Your task to perform on an android device: Open privacy settings Image 0: 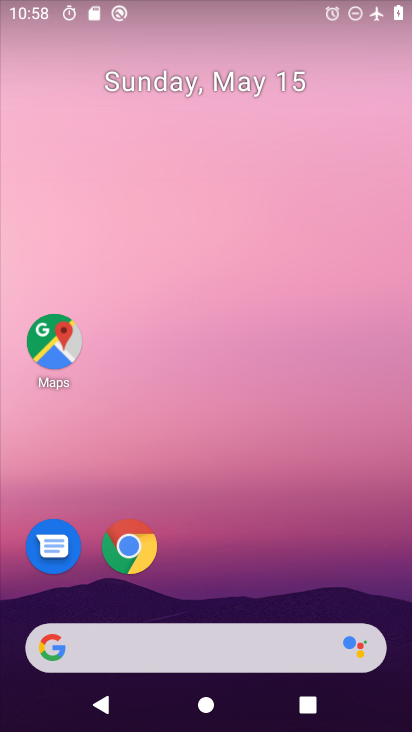
Step 0: drag from (285, 585) to (306, 143)
Your task to perform on an android device: Open privacy settings Image 1: 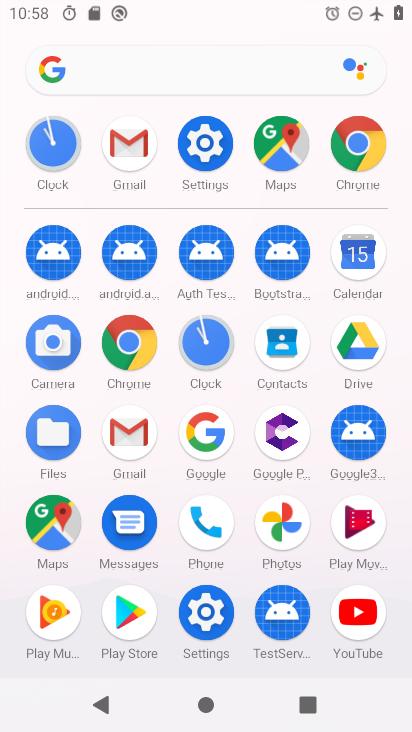
Step 1: click (215, 137)
Your task to perform on an android device: Open privacy settings Image 2: 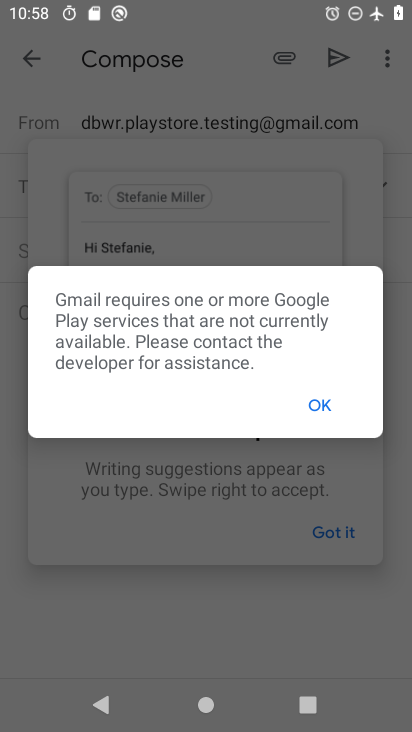
Step 2: press home button
Your task to perform on an android device: Open privacy settings Image 3: 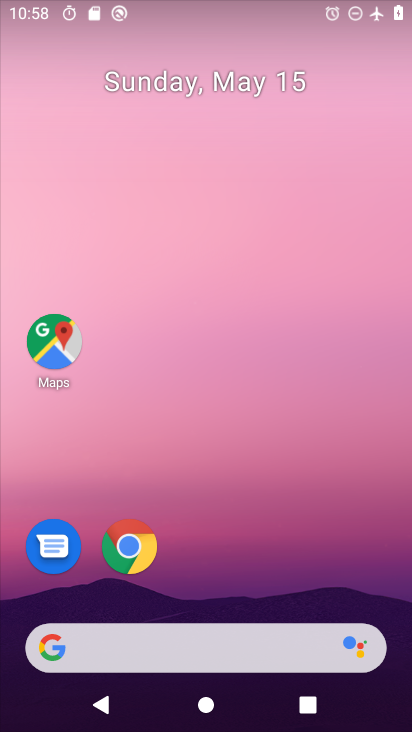
Step 3: drag from (267, 529) to (284, 67)
Your task to perform on an android device: Open privacy settings Image 4: 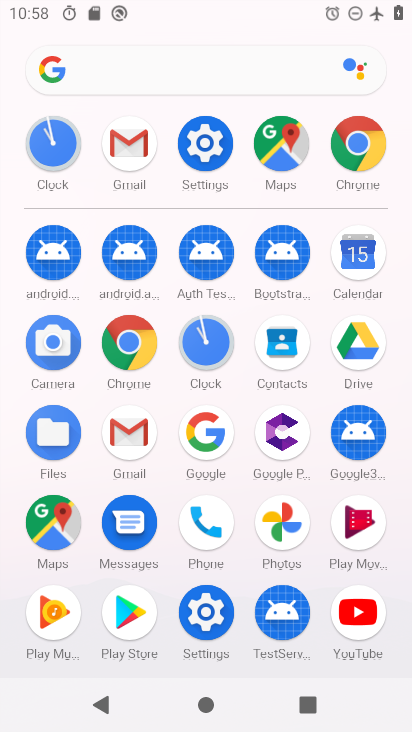
Step 4: click (208, 123)
Your task to perform on an android device: Open privacy settings Image 5: 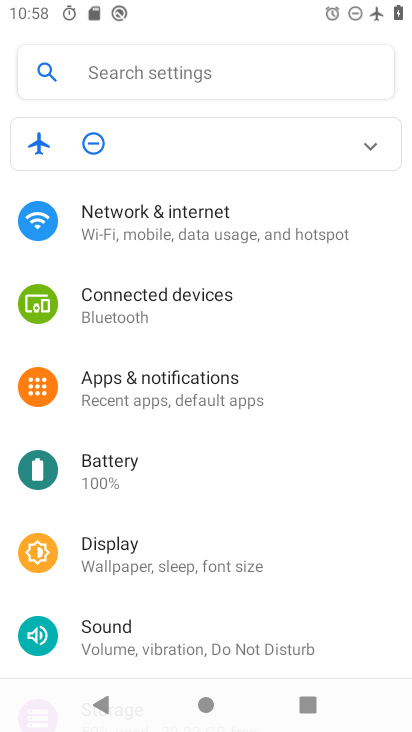
Step 5: drag from (243, 581) to (295, 48)
Your task to perform on an android device: Open privacy settings Image 6: 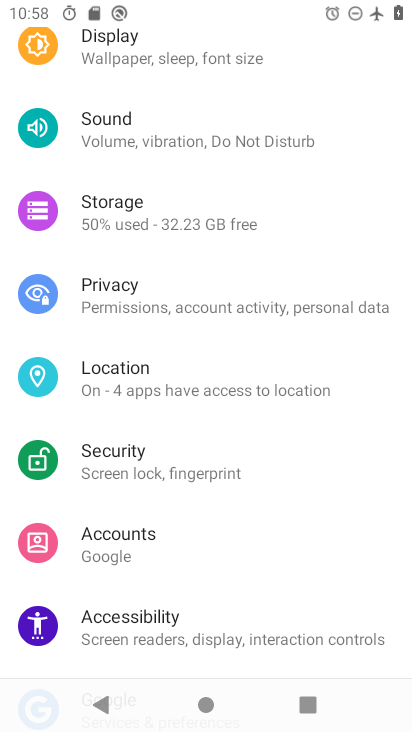
Step 6: drag from (258, 498) to (277, 96)
Your task to perform on an android device: Open privacy settings Image 7: 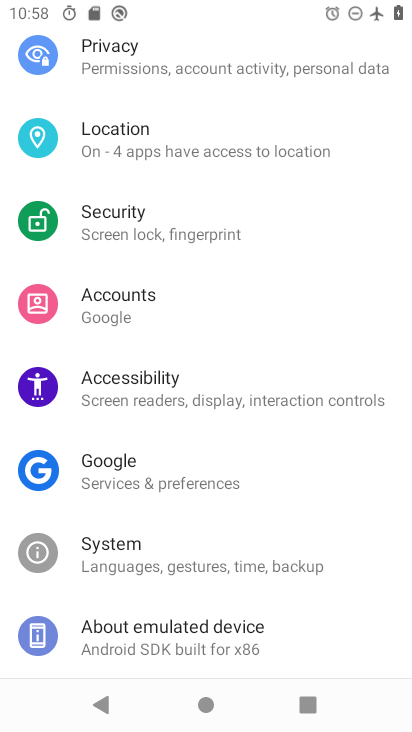
Step 7: drag from (193, 297) to (183, 544)
Your task to perform on an android device: Open privacy settings Image 8: 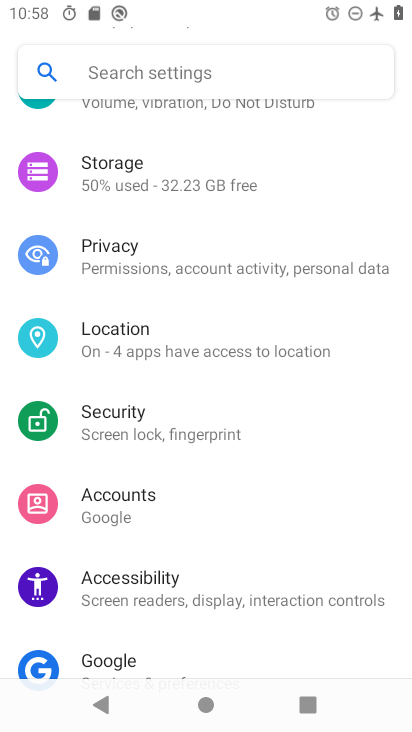
Step 8: click (166, 254)
Your task to perform on an android device: Open privacy settings Image 9: 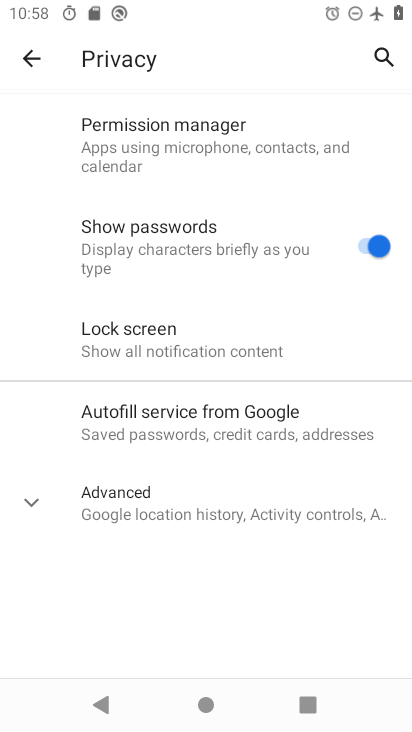
Step 9: task complete